Your task to perform on an android device: delete the emails in spam in the gmail app Image 0: 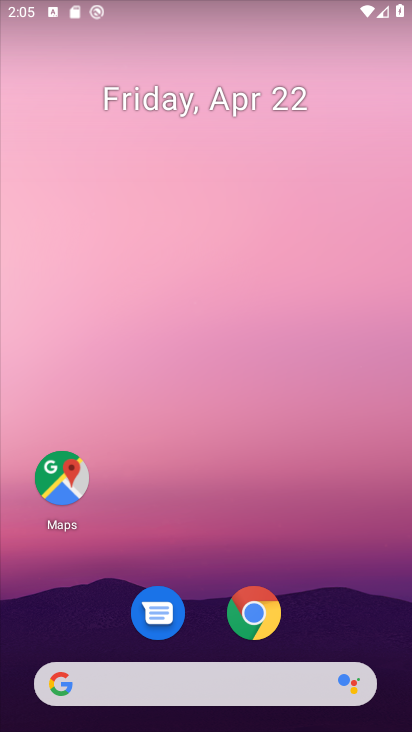
Step 0: press home button
Your task to perform on an android device: delete the emails in spam in the gmail app Image 1: 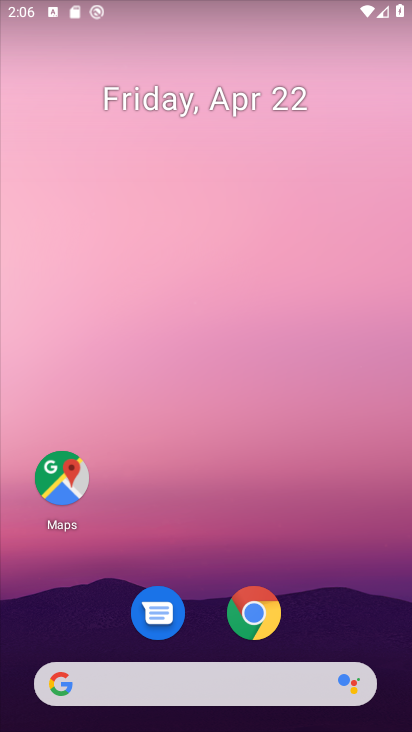
Step 1: drag from (154, 714) to (188, 145)
Your task to perform on an android device: delete the emails in spam in the gmail app Image 2: 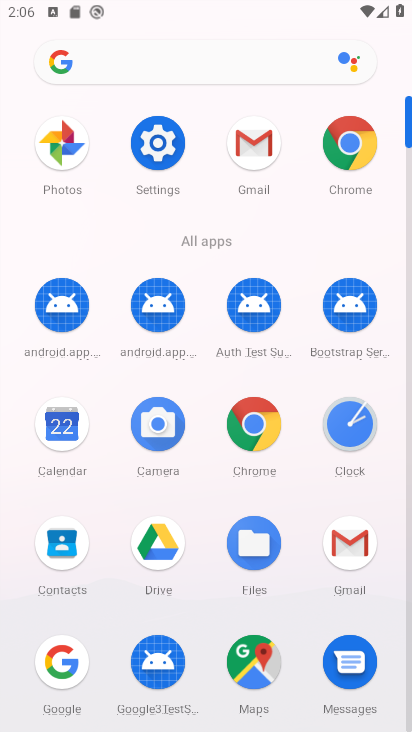
Step 2: click (262, 147)
Your task to perform on an android device: delete the emails in spam in the gmail app Image 3: 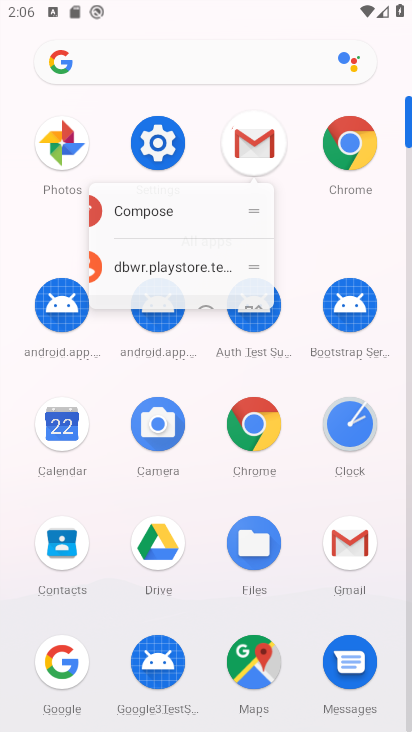
Step 3: click (262, 147)
Your task to perform on an android device: delete the emails in spam in the gmail app Image 4: 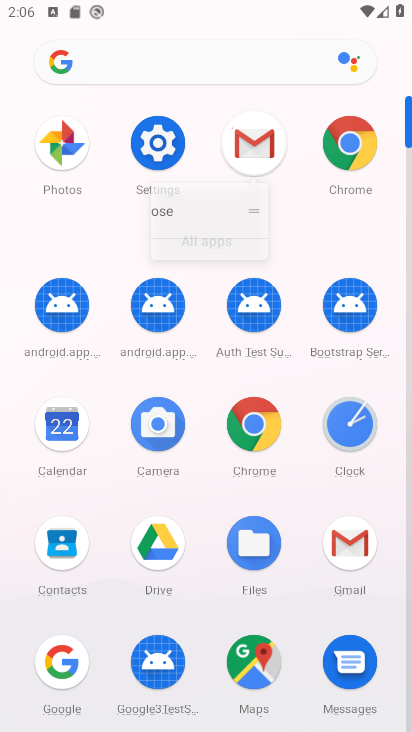
Step 4: click (262, 147)
Your task to perform on an android device: delete the emails in spam in the gmail app Image 5: 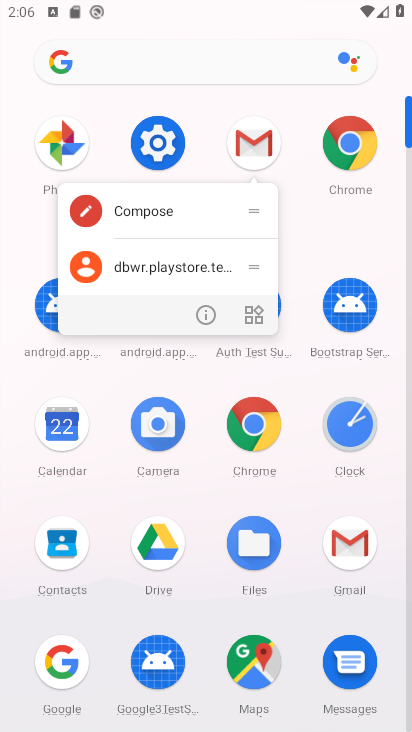
Step 5: click (262, 147)
Your task to perform on an android device: delete the emails in spam in the gmail app Image 6: 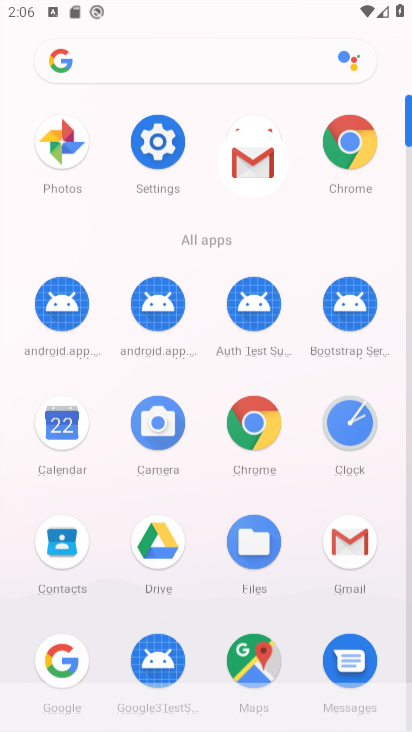
Step 6: click (264, 143)
Your task to perform on an android device: delete the emails in spam in the gmail app Image 7: 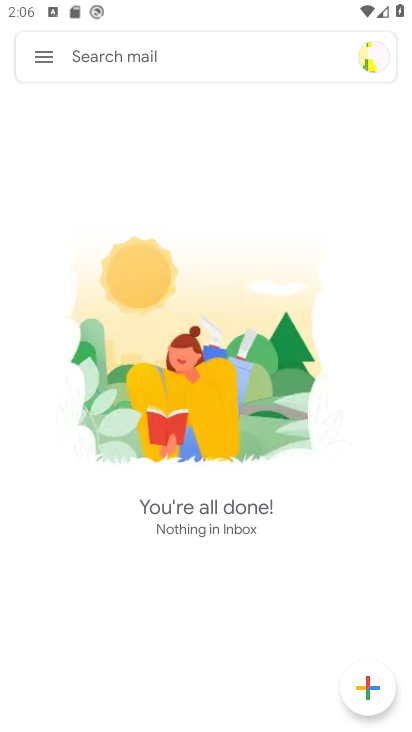
Step 7: click (46, 52)
Your task to perform on an android device: delete the emails in spam in the gmail app Image 8: 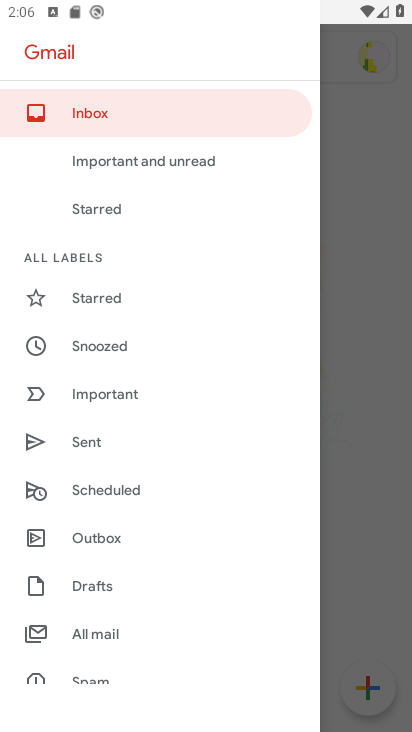
Step 8: click (120, 677)
Your task to perform on an android device: delete the emails in spam in the gmail app Image 9: 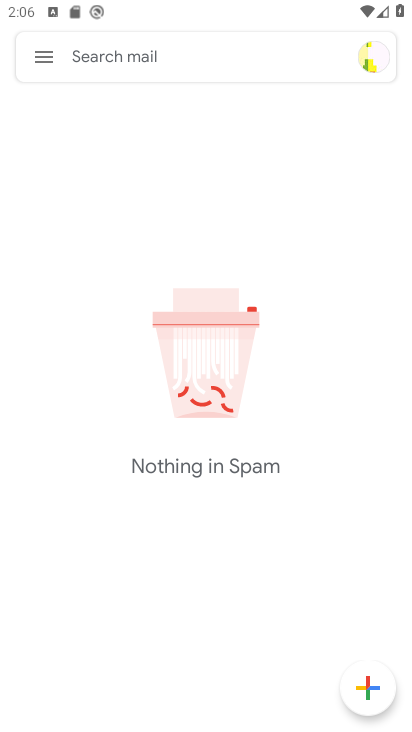
Step 9: task complete